Your task to perform on an android device: Play the last video I watched on Youtube Image 0: 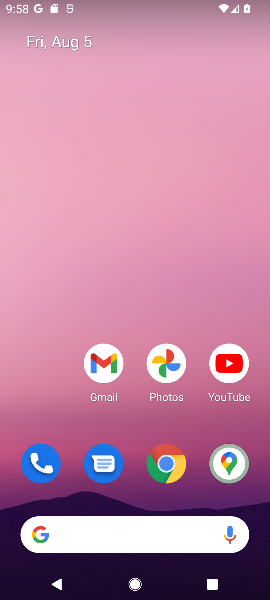
Step 0: click (48, 128)
Your task to perform on an android device: Play the last video I watched on Youtube Image 1: 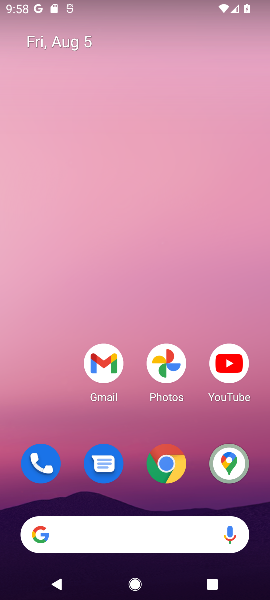
Step 1: click (117, 74)
Your task to perform on an android device: Play the last video I watched on Youtube Image 2: 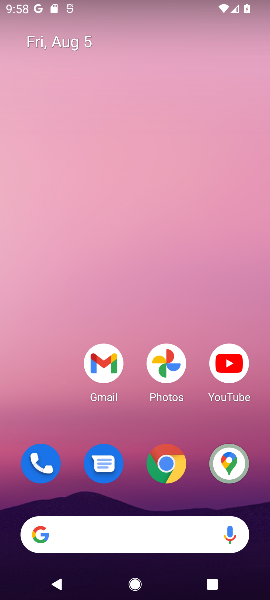
Step 2: drag from (196, 494) to (142, 172)
Your task to perform on an android device: Play the last video I watched on Youtube Image 3: 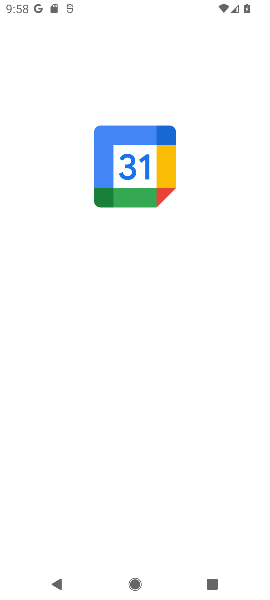
Step 3: drag from (203, 536) to (150, 213)
Your task to perform on an android device: Play the last video I watched on Youtube Image 4: 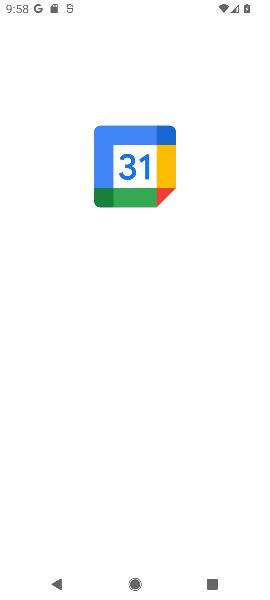
Step 4: drag from (175, 425) to (143, 196)
Your task to perform on an android device: Play the last video I watched on Youtube Image 5: 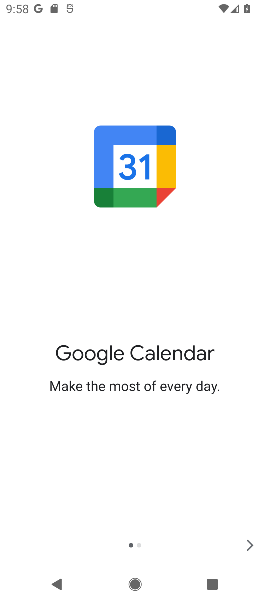
Step 5: click (248, 537)
Your task to perform on an android device: Play the last video I watched on Youtube Image 6: 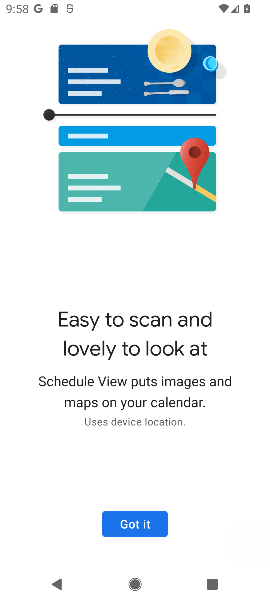
Step 6: press back button
Your task to perform on an android device: Play the last video I watched on Youtube Image 7: 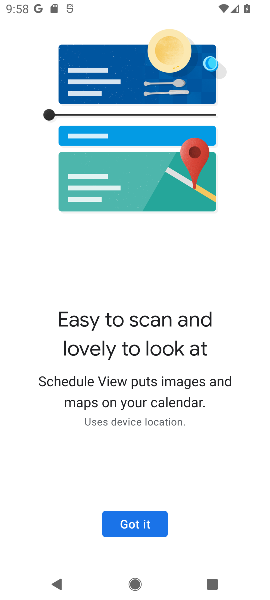
Step 7: press back button
Your task to perform on an android device: Play the last video I watched on Youtube Image 8: 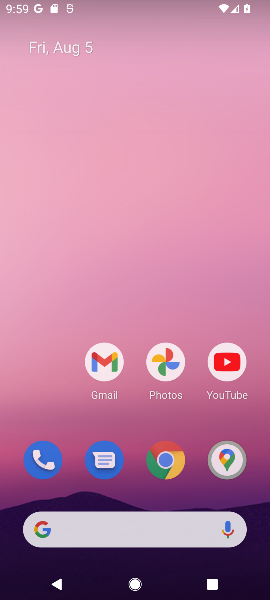
Step 8: press back button
Your task to perform on an android device: Play the last video I watched on Youtube Image 9: 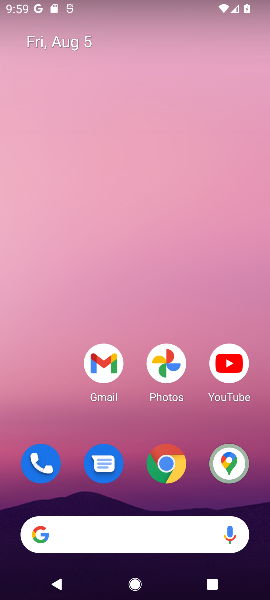
Step 9: press back button
Your task to perform on an android device: Play the last video I watched on Youtube Image 10: 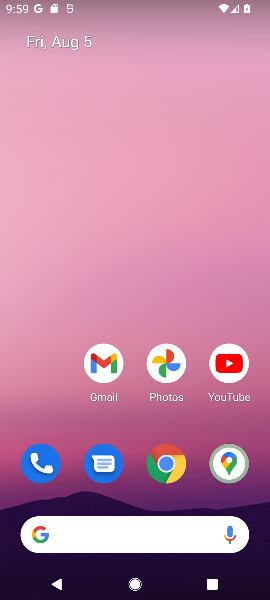
Step 10: press back button
Your task to perform on an android device: Play the last video I watched on Youtube Image 11: 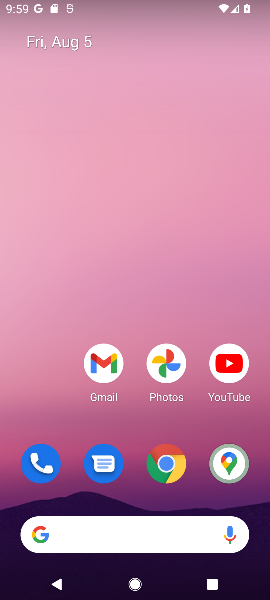
Step 11: press back button
Your task to perform on an android device: Play the last video I watched on Youtube Image 12: 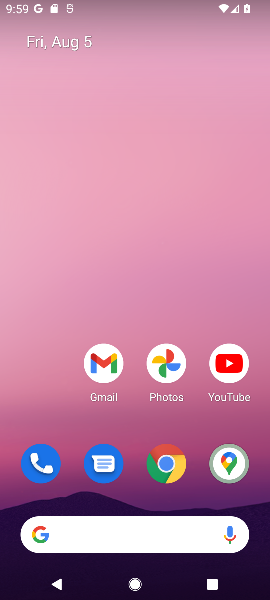
Step 12: drag from (222, 553) to (105, 211)
Your task to perform on an android device: Play the last video I watched on Youtube Image 13: 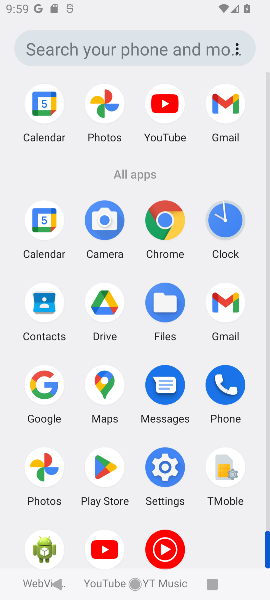
Step 13: drag from (174, 450) to (128, 145)
Your task to perform on an android device: Play the last video I watched on Youtube Image 14: 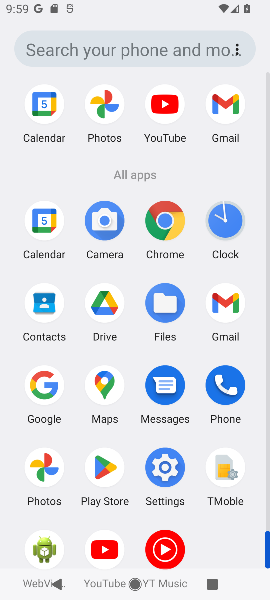
Step 14: click (109, 542)
Your task to perform on an android device: Play the last video I watched on Youtube Image 15: 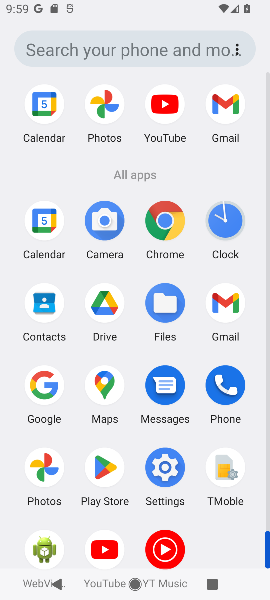
Step 15: click (107, 542)
Your task to perform on an android device: Play the last video I watched on Youtube Image 16: 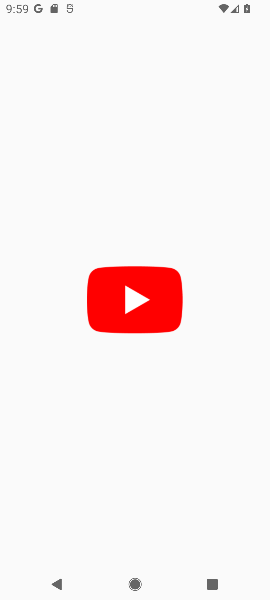
Step 16: click (100, 550)
Your task to perform on an android device: Play the last video I watched on Youtube Image 17: 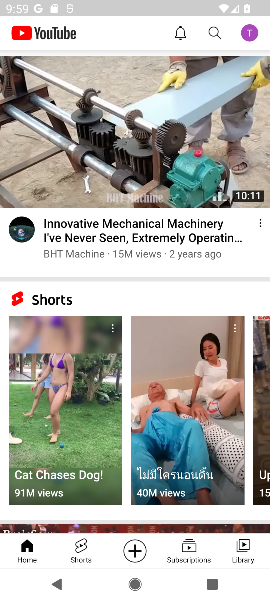
Step 17: click (131, 148)
Your task to perform on an android device: Play the last video I watched on Youtube Image 18: 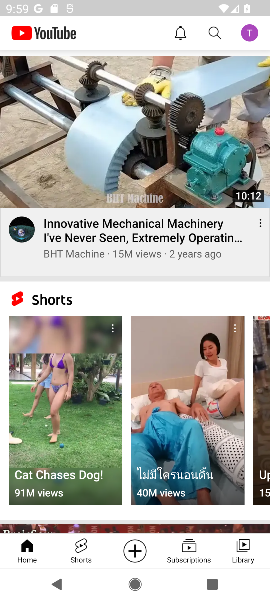
Step 18: click (134, 148)
Your task to perform on an android device: Play the last video I watched on Youtube Image 19: 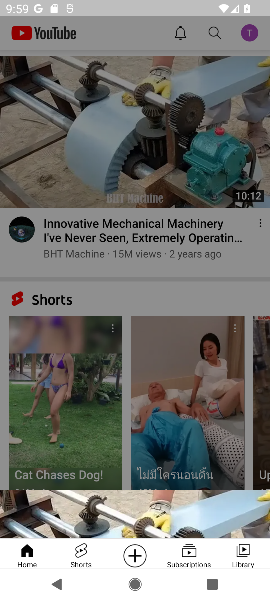
Step 19: click (134, 148)
Your task to perform on an android device: Play the last video I watched on Youtube Image 20: 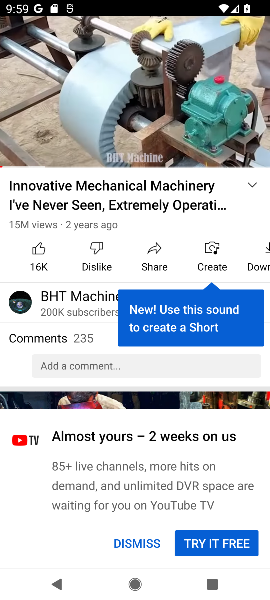
Step 20: task complete